Your task to perform on an android device: Play the last video I watched on Youtube Image 0: 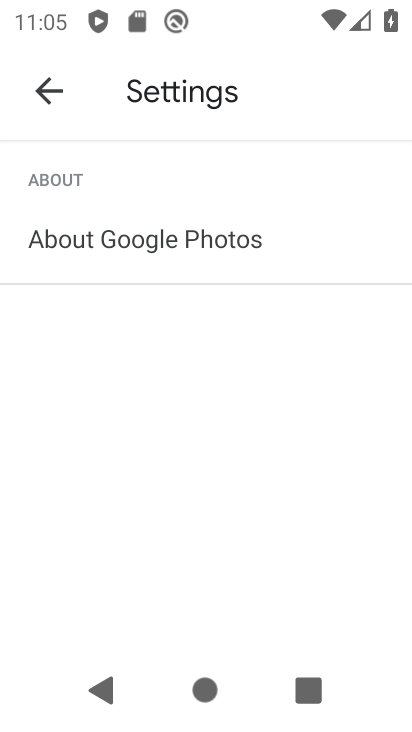
Step 0: press home button
Your task to perform on an android device: Play the last video I watched on Youtube Image 1: 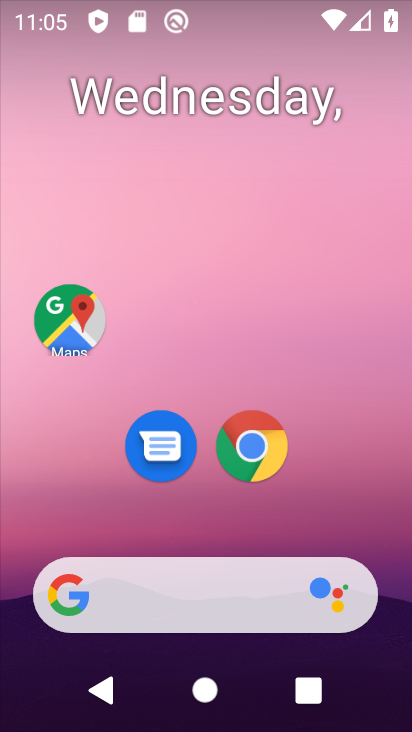
Step 1: drag from (319, 530) to (129, 105)
Your task to perform on an android device: Play the last video I watched on Youtube Image 2: 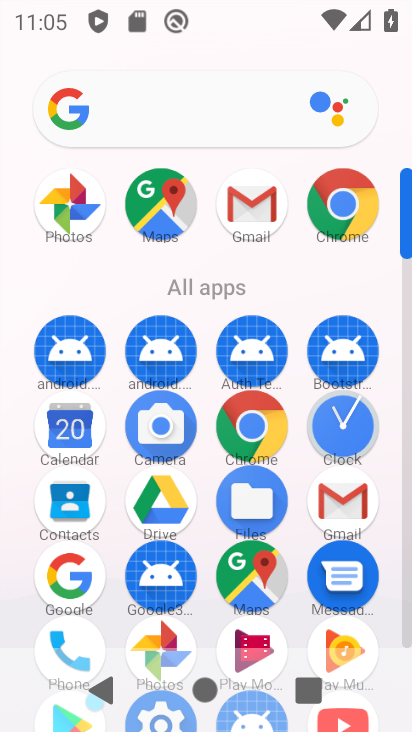
Step 2: drag from (299, 634) to (297, 297)
Your task to perform on an android device: Play the last video I watched on Youtube Image 3: 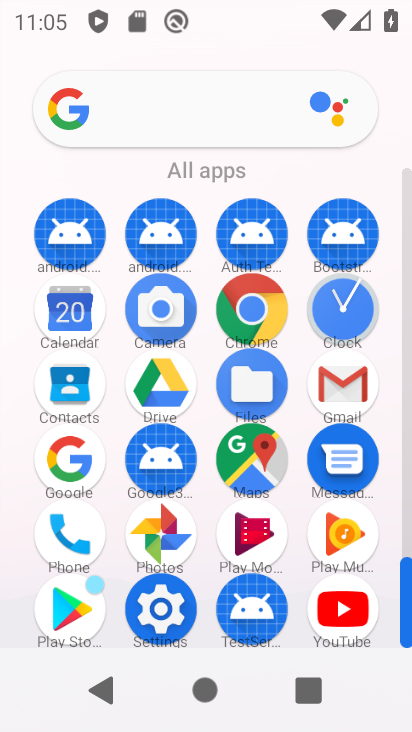
Step 3: click (348, 601)
Your task to perform on an android device: Play the last video I watched on Youtube Image 4: 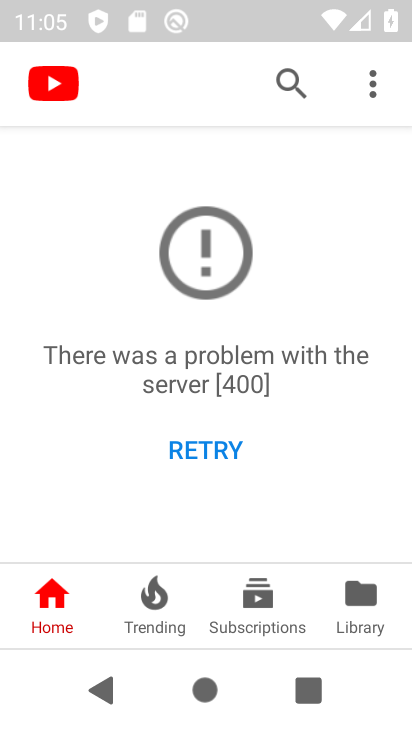
Step 4: click (363, 610)
Your task to perform on an android device: Play the last video I watched on Youtube Image 5: 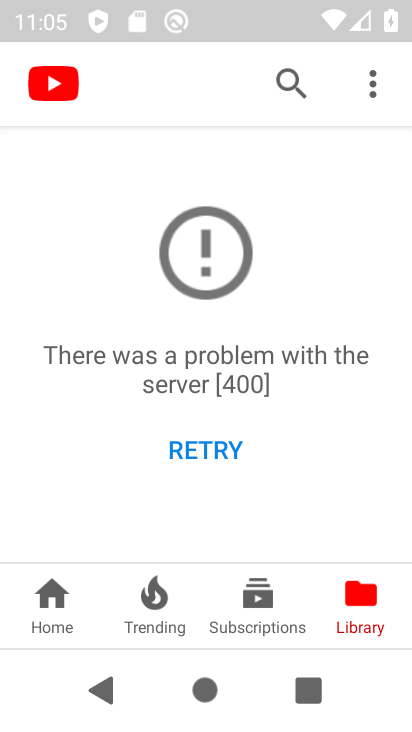
Step 5: click (363, 610)
Your task to perform on an android device: Play the last video I watched on Youtube Image 6: 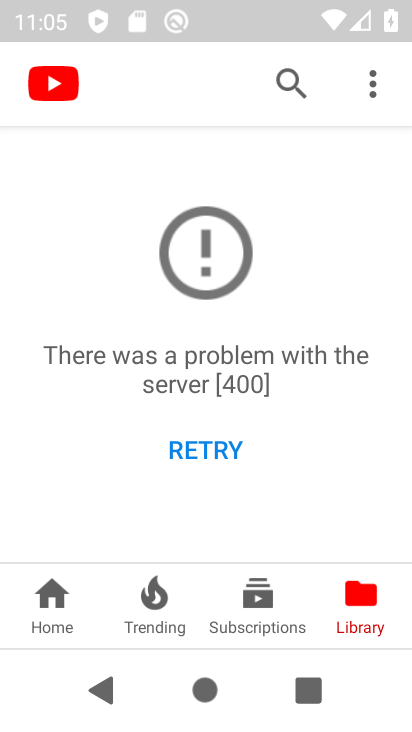
Step 6: click (200, 449)
Your task to perform on an android device: Play the last video I watched on Youtube Image 7: 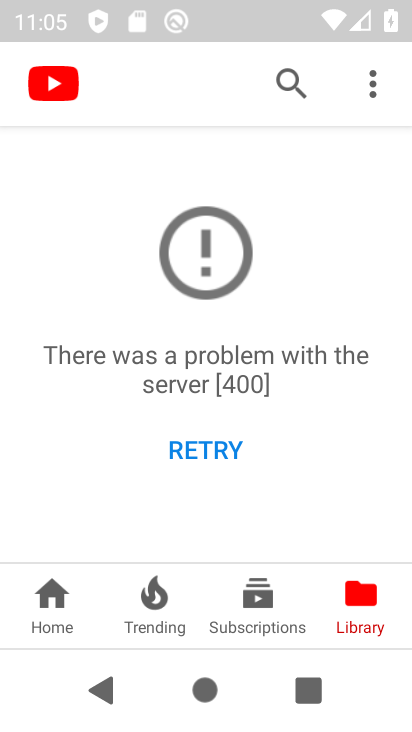
Step 7: click (200, 449)
Your task to perform on an android device: Play the last video I watched on Youtube Image 8: 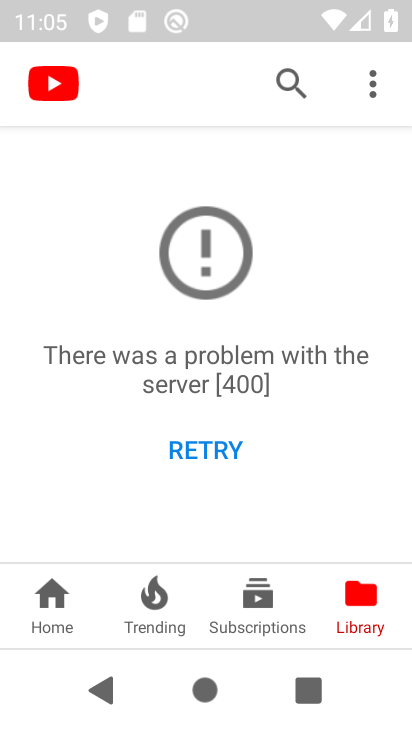
Step 8: task complete